Your task to perform on an android device: Search for "usb-c to usb-a" on target, select the first entry, add it to the cart, then select checkout. Image 0: 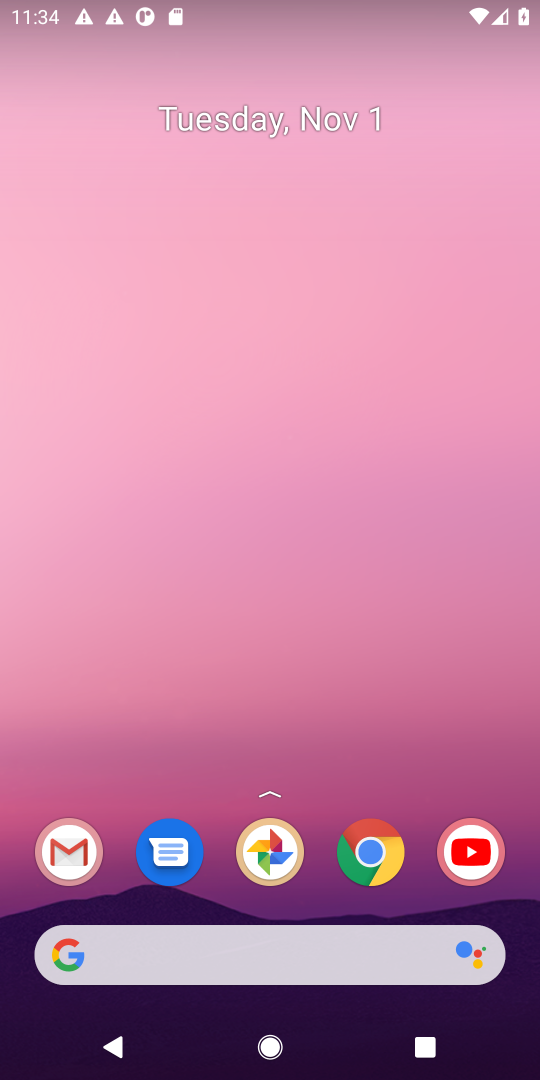
Step 0: click (72, 959)
Your task to perform on an android device: Search for "usb-c to usb-a" on target, select the first entry, add it to the cart, then select checkout. Image 1: 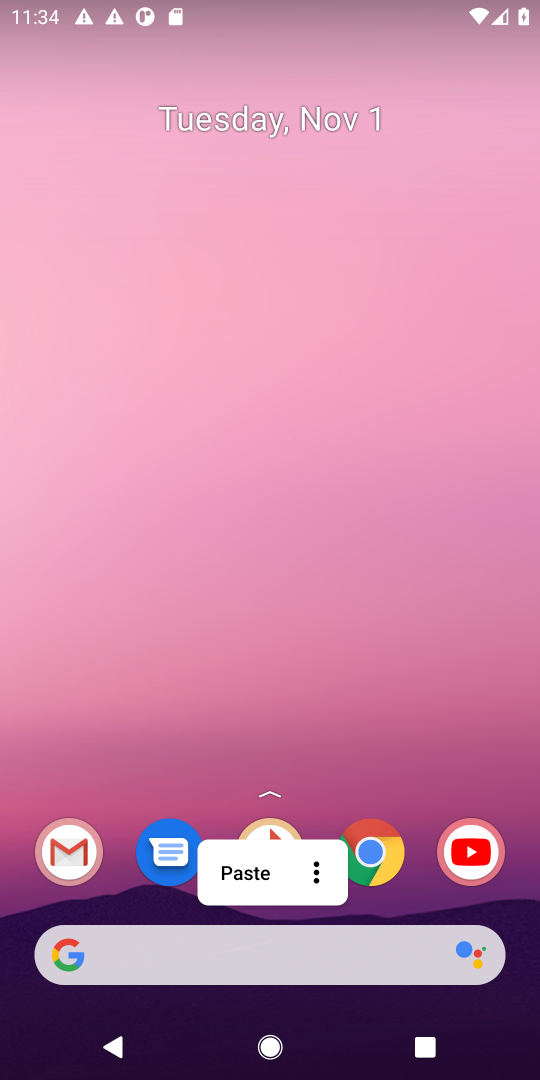
Step 1: click (76, 953)
Your task to perform on an android device: Search for "usb-c to usb-a" on target, select the first entry, add it to the cart, then select checkout. Image 2: 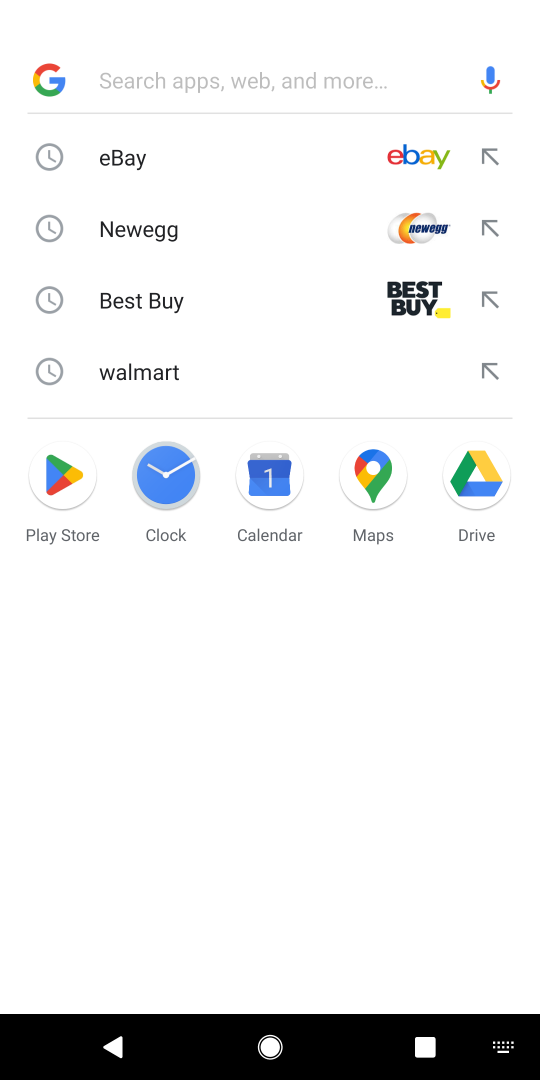
Step 2: type " target"
Your task to perform on an android device: Search for "usb-c to usb-a" on target, select the first entry, add it to the cart, then select checkout. Image 3: 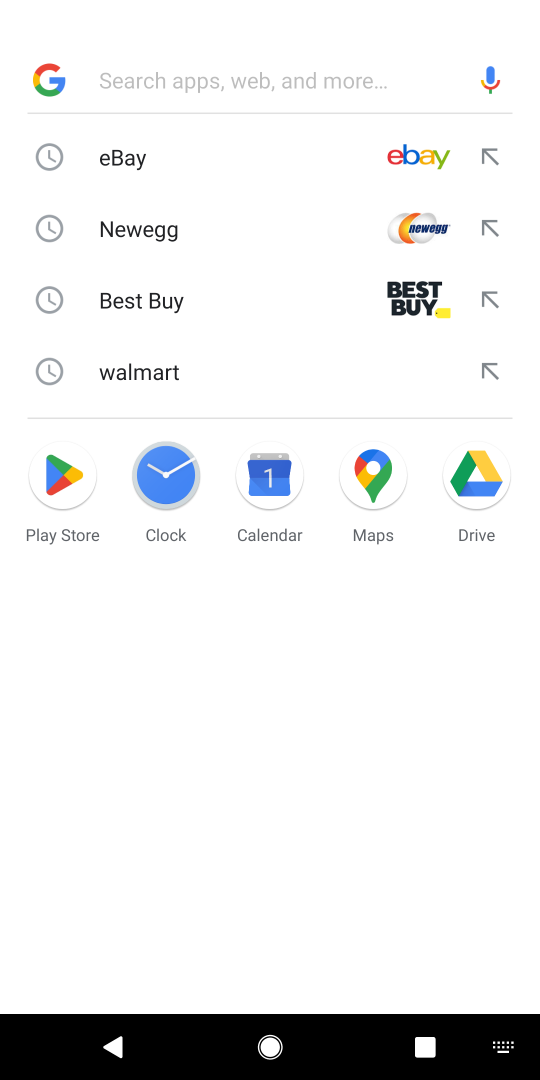
Step 3: click (151, 82)
Your task to perform on an android device: Search for "usb-c to usb-a" on target, select the first entry, add it to the cart, then select checkout. Image 4: 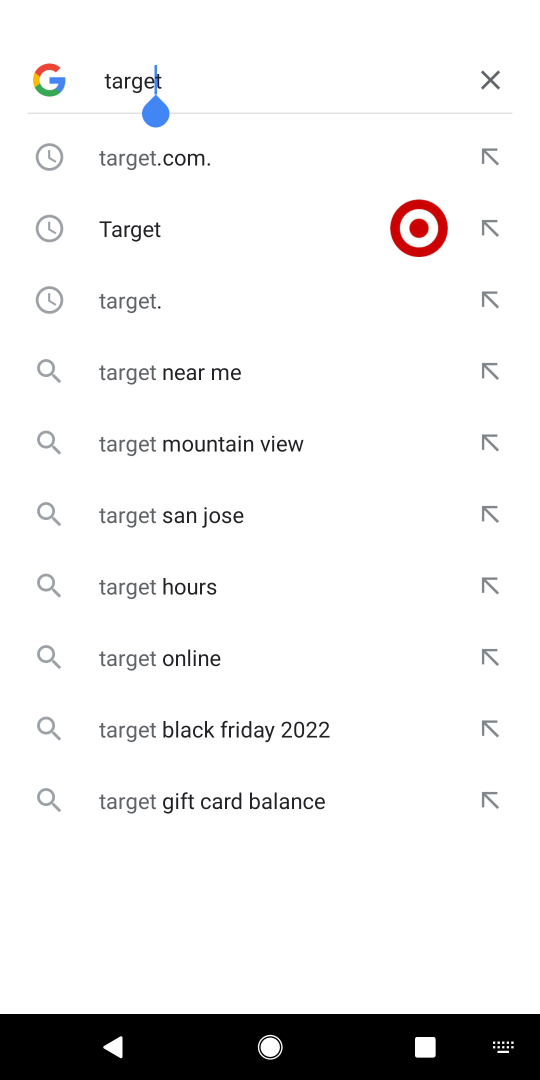
Step 4: click (177, 148)
Your task to perform on an android device: Search for "usb-c to usb-a" on target, select the first entry, add it to the cart, then select checkout. Image 5: 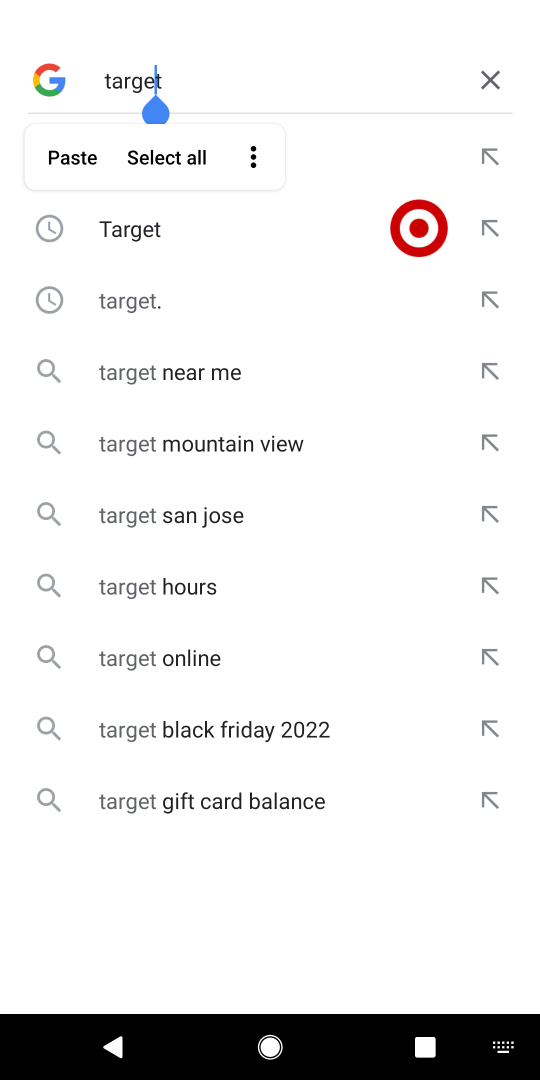
Step 5: click (140, 233)
Your task to perform on an android device: Search for "usb-c to usb-a" on target, select the first entry, add it to the cart, then select checkout. Image 6: 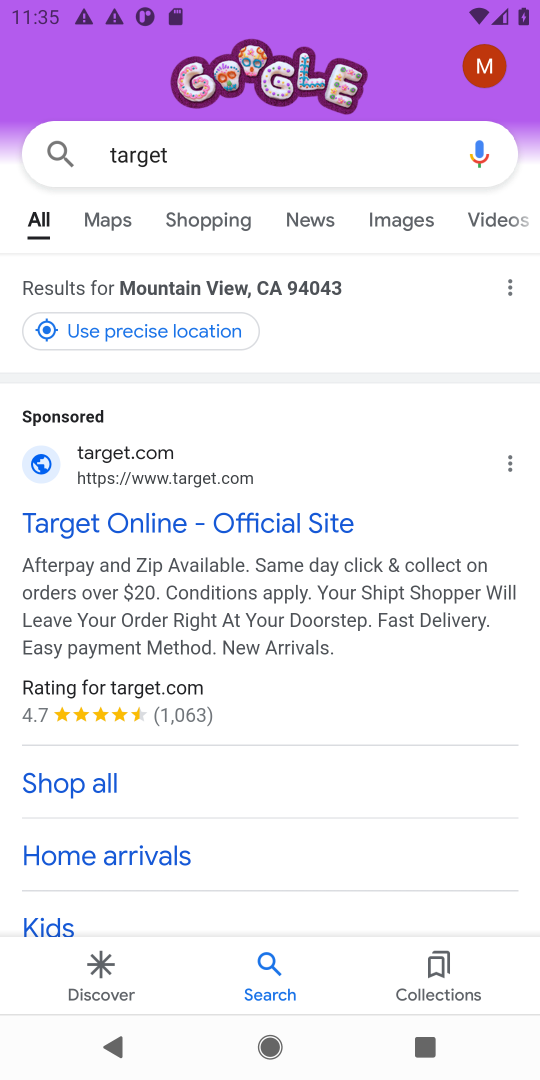
Step 6: drag from (278, 725) to (259, 333)
Your task to perform on an android device: Search for "usb-c to usb-a" on target, select the first entry, add it to the cart, then select checkout. Image 7: 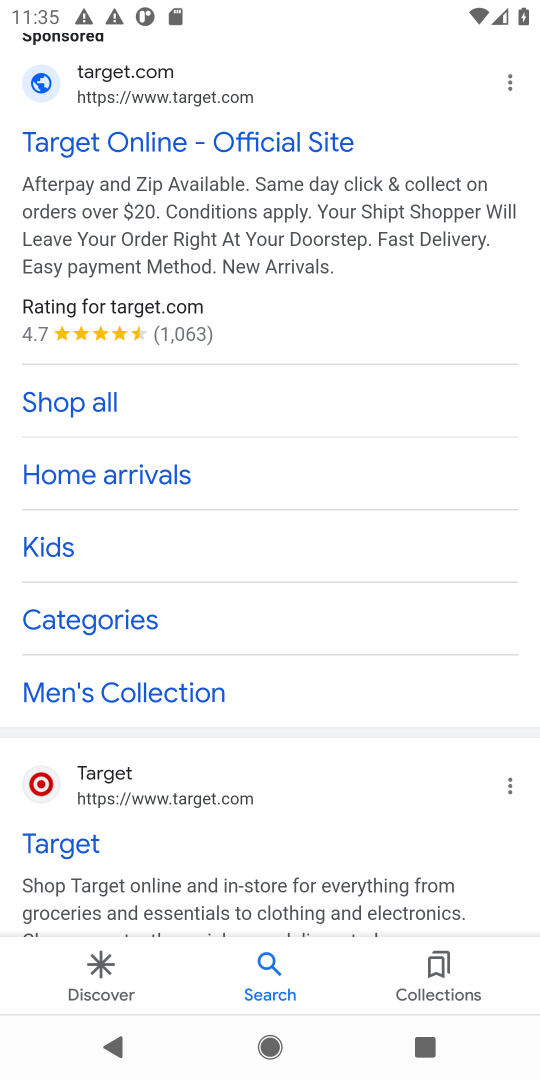
Step 7: click (76, 840)
Your task to perform on an android device: Search for "usb-c to usb-a" on target, select the first entry, add it to the cart, then select checkout. Image 8: 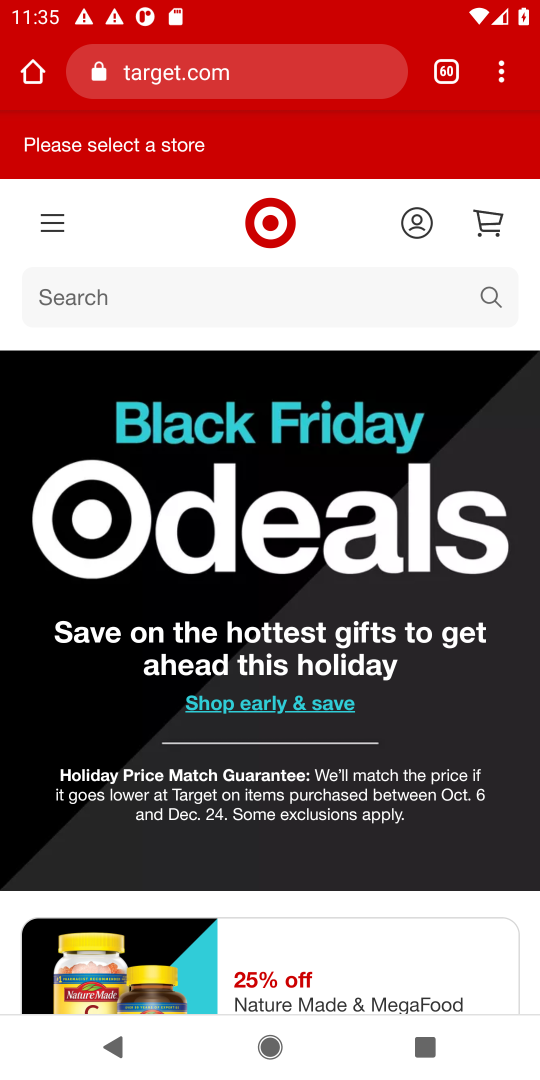
Step 8: click (76, 302)
Your task to perform on an android device: Search for "usb-c to usb-a" on target, select the first entry, add it to the cart, then select checkout. Image 9: 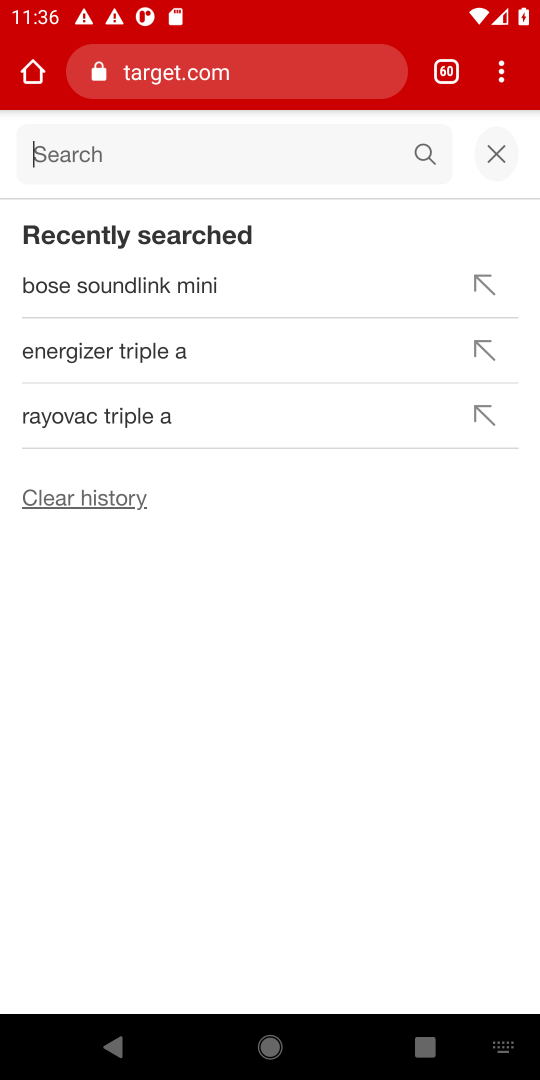
Step 9: type "usb-c to usb-a"
Your task to perform on an android device: Search for "usb-c to usb-a" on target, select the first entry, add it to the cart, then select checkout. Image 10: 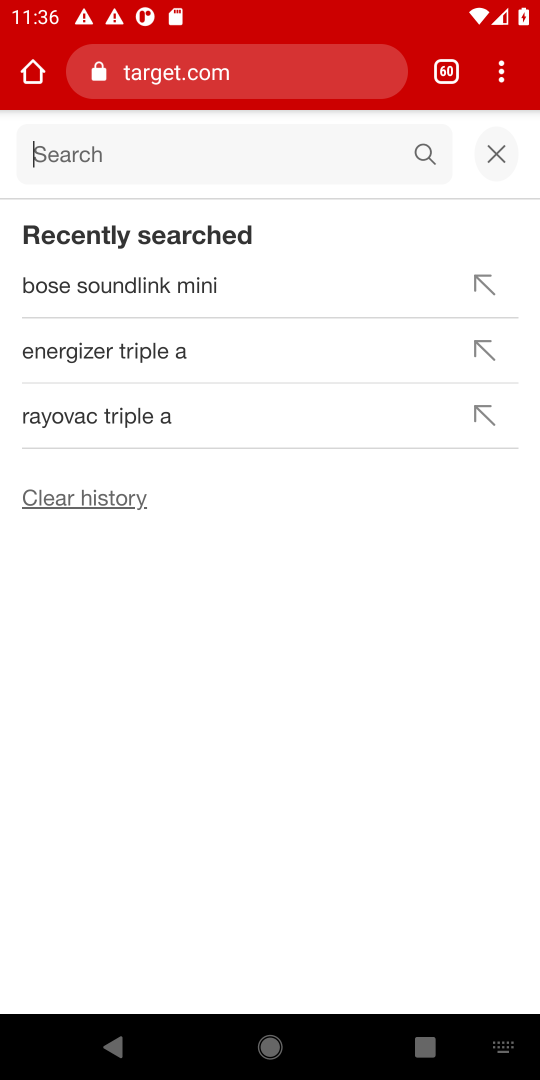
Step 10: click (117, 159)
Your task to perform on an android device: Search for "usb-c to usb-a" on target, select the first entry, add it to the cart, then select checkout. Image 11: 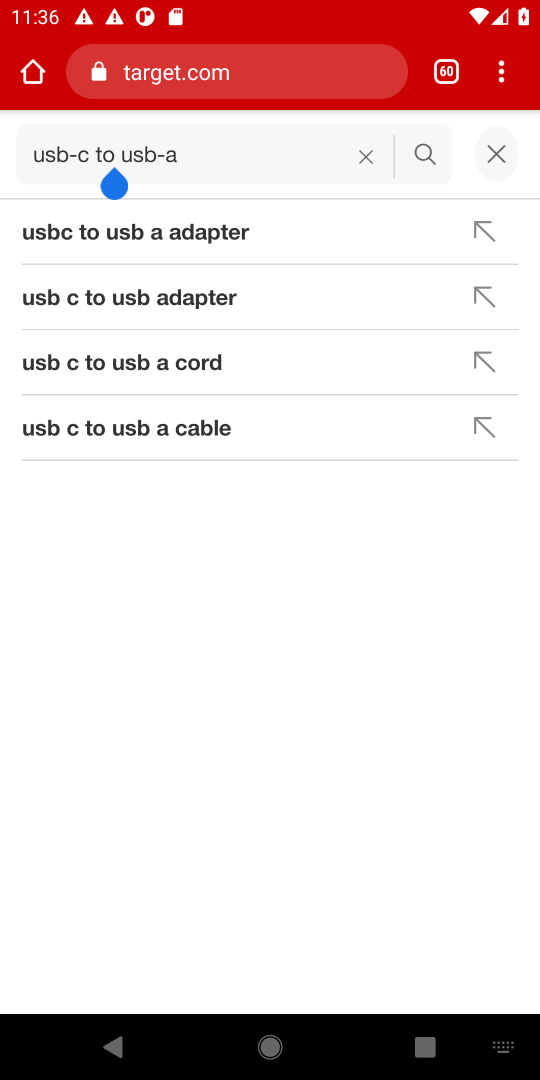
Step 11: press enter
Your task to perform on an android device: Search for "usb-c to usb-a" on target, select the first entry, add it to the cart, then select checkout. Image 12: 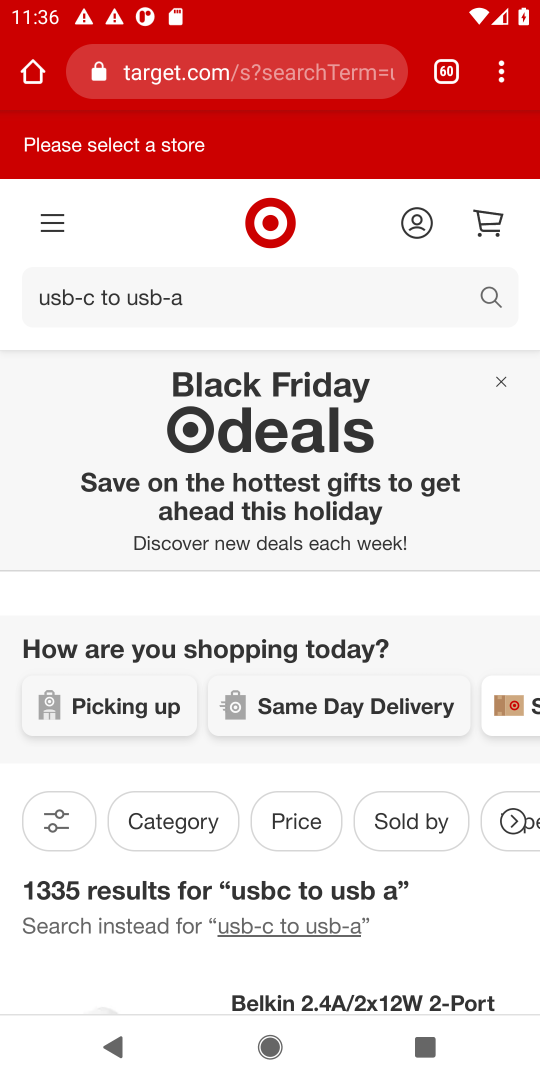
Step 12: click (491, 286)
Your task to perform on an android device: Search for "usb-c to usb-a" on target, select the first entry, add it to the cart, then select checkout. Image 13: 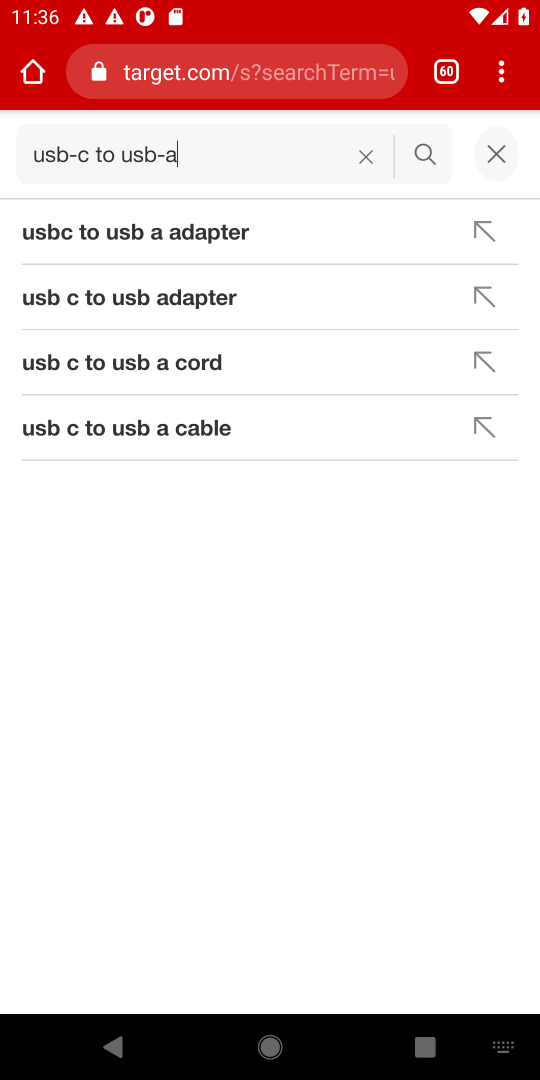
Step 13: press enter
Your task to perform on an android device: Search for "usb-c to usb-a" on target, select the first entry, add it to the cart, then select checkout. Image 14: 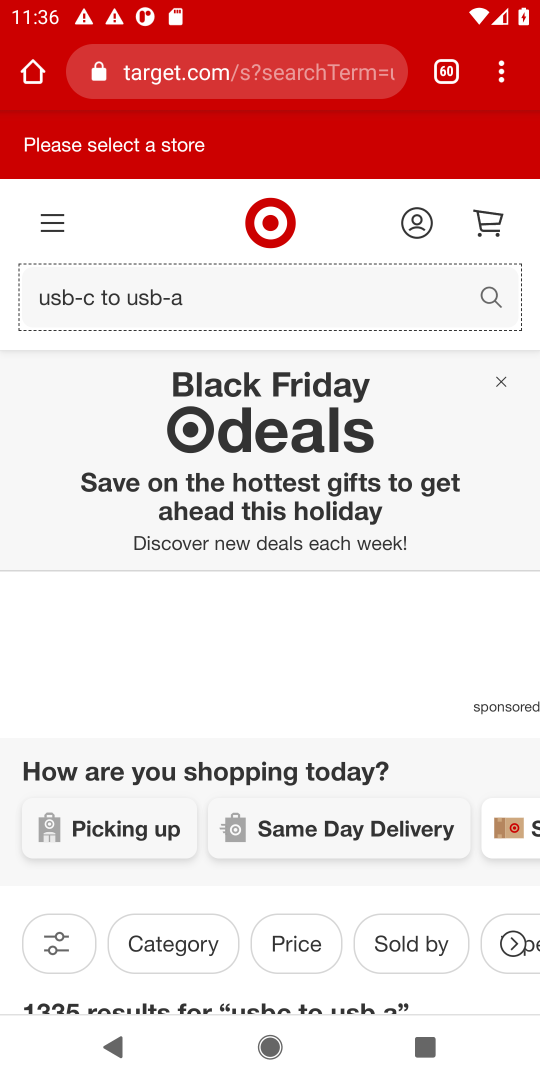
Step 14: drag from (422, 728) to (430, 338)
Your task to perform on an android device: Search for "usb-c to usb-a" on target, select the first entry, add it to the cart, then select checkout. Image 15: 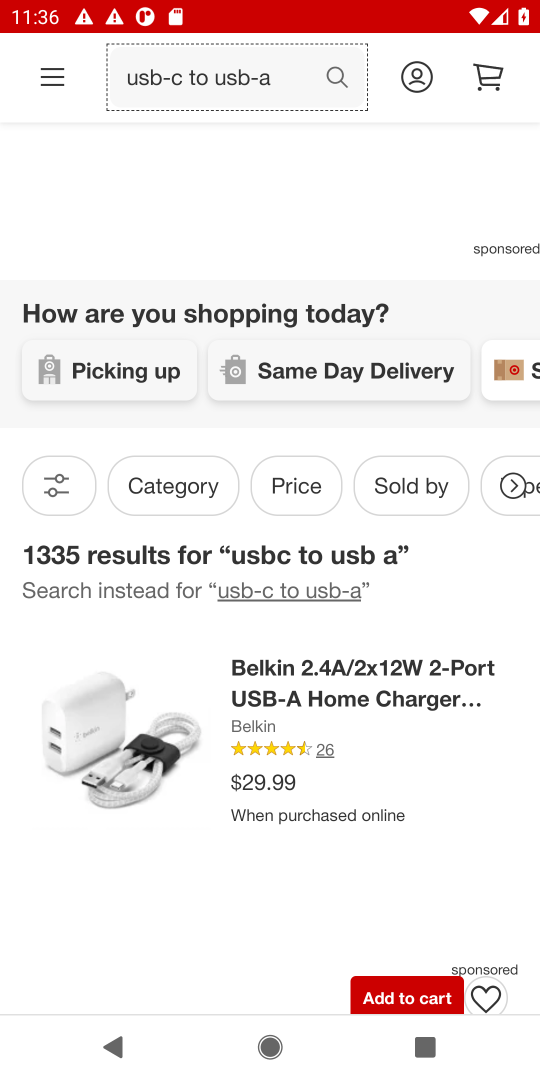
Step 15: drag from (359, 734) to (376, 394)
Your task to perform on an android device: Search for "usb-c to usb-a" on target, select the first entry, add it to the cart, then select checkout. Image 16: 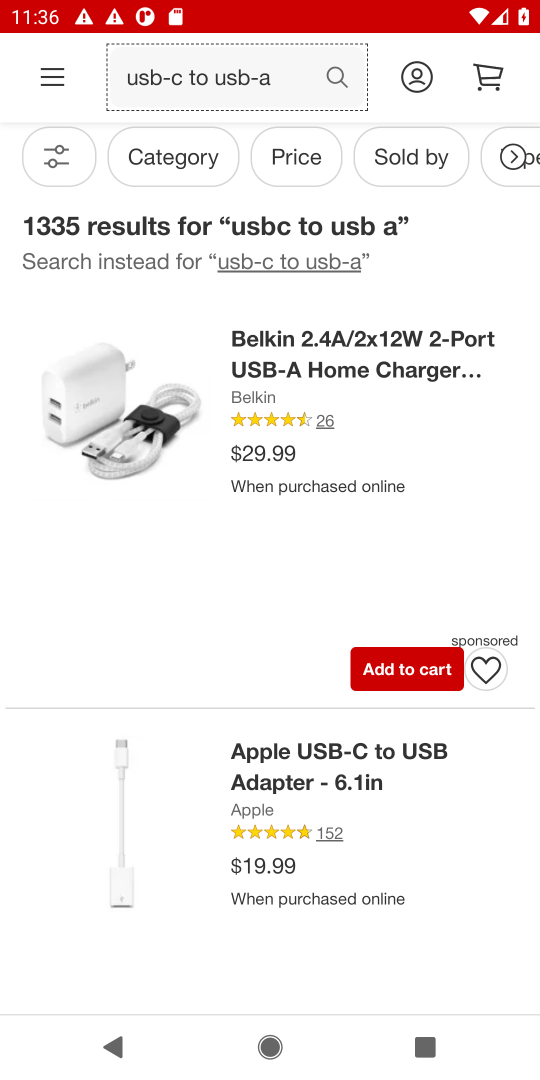
Step 16: click (146, 817)
Your task to perform on an android device: Search for "usb-c to usb-a" on target, select the first entry, add it to the cart, then select checkout. Image 17: 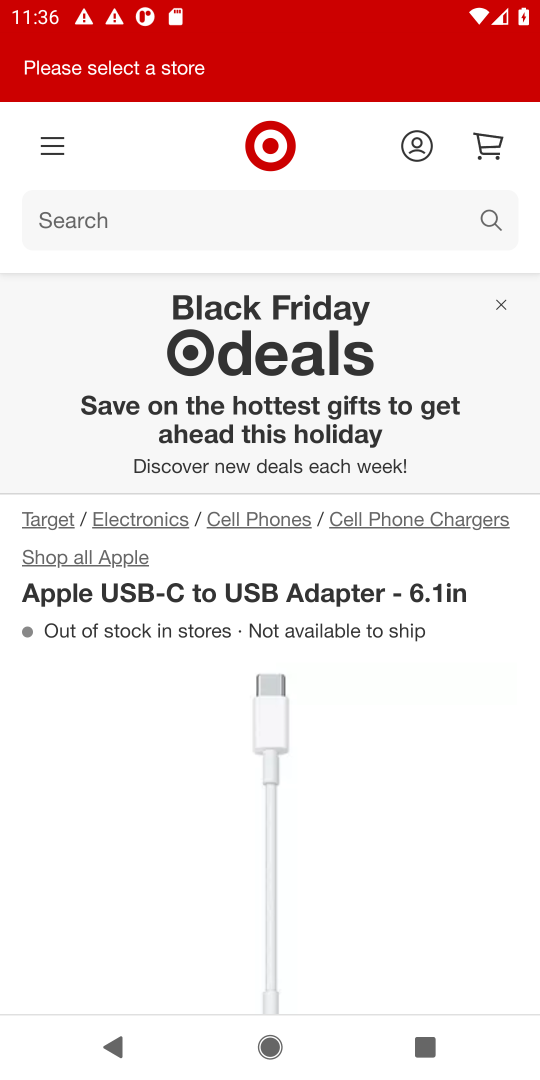
Step 17: drag from (391, 902) to (409, 323)
Your task to perform on an android device: Search for "usb-c to usb-a" on target, select the first entry, add it to the cart, then select checkout. Image 18: 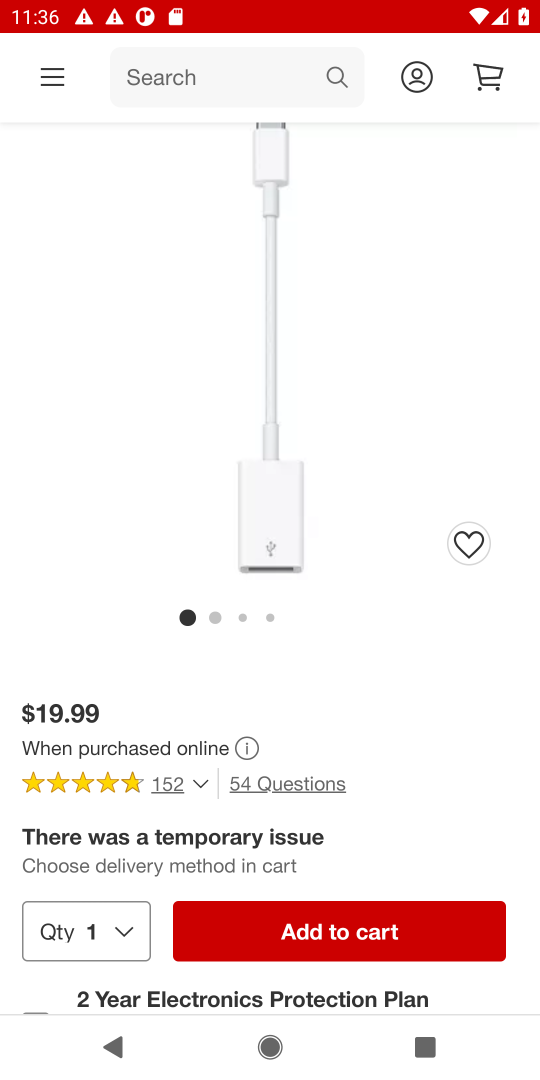
Step 18: drag from (414, 743) to (388, 167)
Your task to perform on an android device: Search for "usb-c to usb-a" on target, select the first entry, add it to the cart, then select checkout. Image 19: 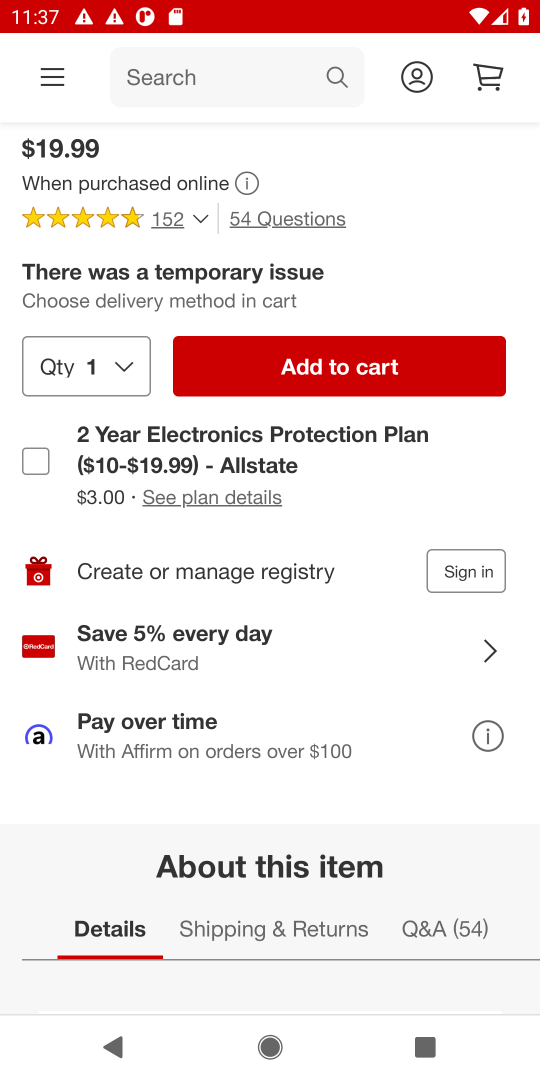
Step 19: click (303, 361)
Your task to perform on an android device: Search for "usb-c to usb-a" on target, select the first entry, add it to the cart, then select checkout. Image 20: 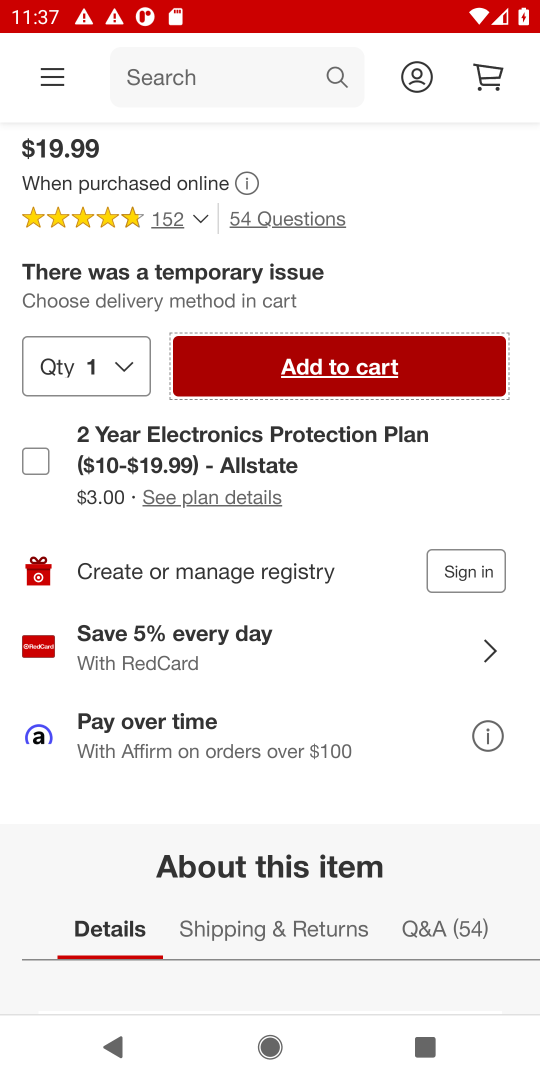
Step 20: click (336, 381)
Your task to perform on an android device: Search for "usb-c to usb-a" on target, select the first entry, add it to the cart, then select checkout. Image 21: 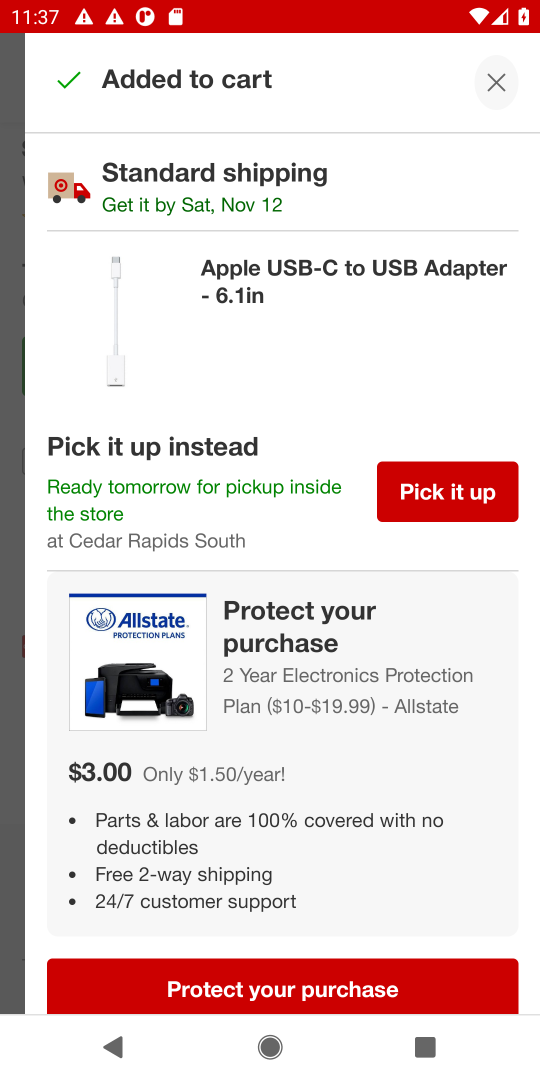
Step 21: click (494, 76)
Your task to perform on an android device: Search for "usb-c to usb-a" on target, select the first entry, add it to the cart, then select checkout. Image 22: 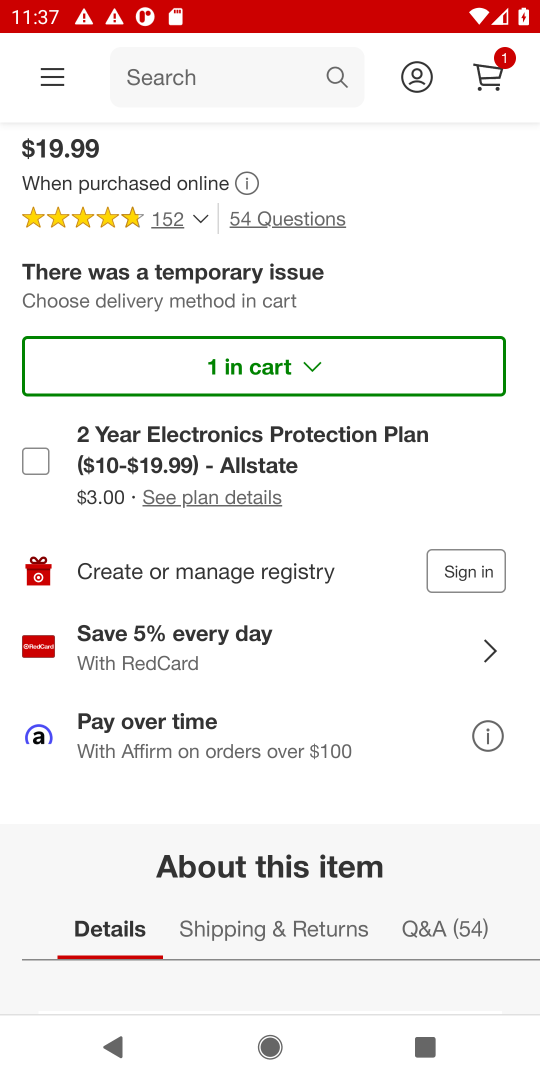
Step 22: click (493, 77)
Your task to perform on an android device: Search for "usb-c to usb-a" on target, select the first entry, add it to the cart, then select checkout. Image 23: 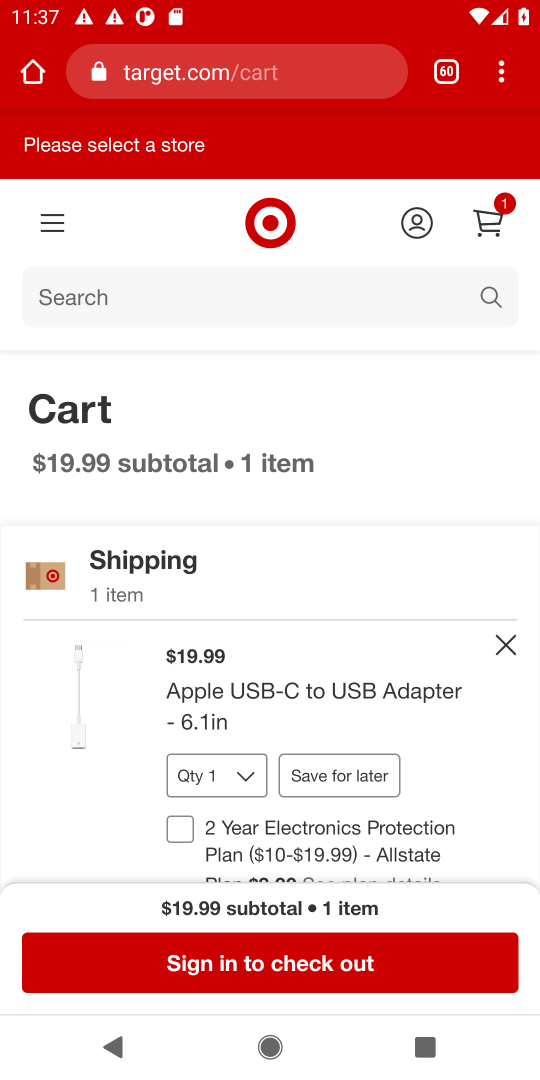
Step 23: click (352, 971)
Your task to perform on an android device: Search for "usb-c to usb-a" on target, select the first entry, add it to the cart, then select checkout. Image 24: 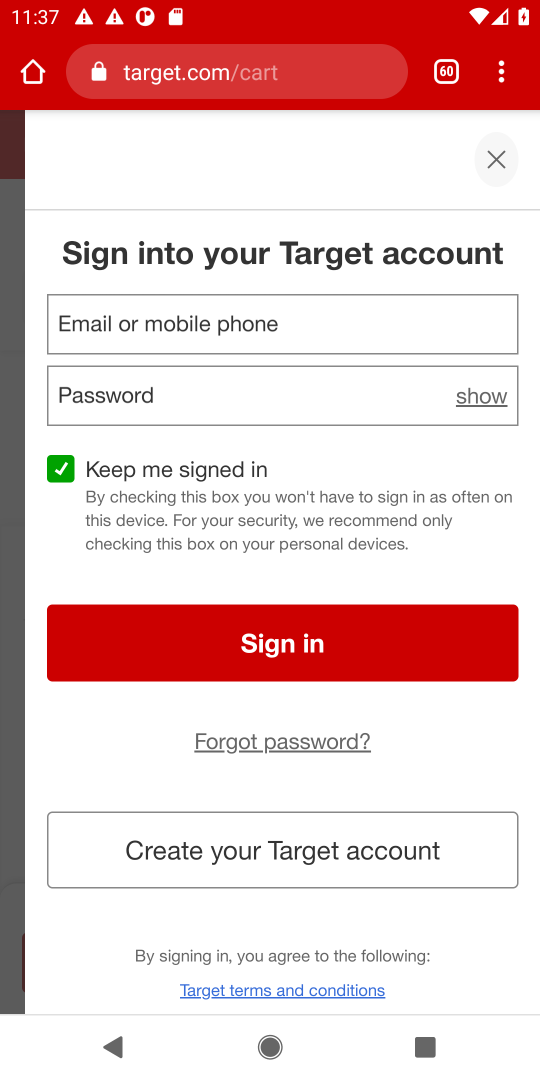
Step 24: task complete